Your task to perform on an android device: clear all cookies in the chrome app Image 0: 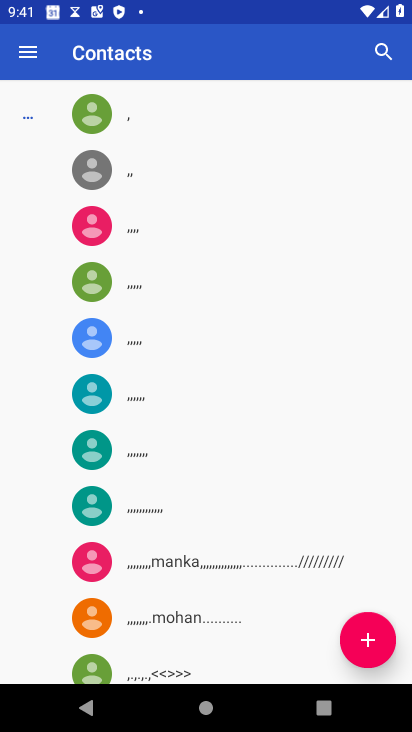
Step 0: press home button
Your task to perform on an android device: clear all cookies in the chrome app Image 1: 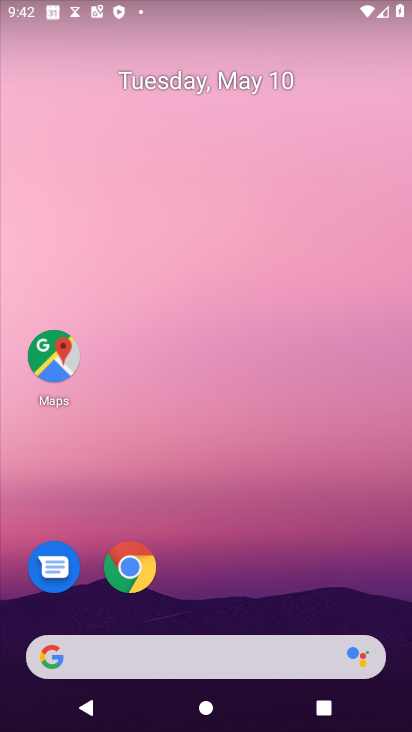
Step 1: click (125, 567)
Your task to perform on an android device: clear all cookies in the chrome app Image 2: 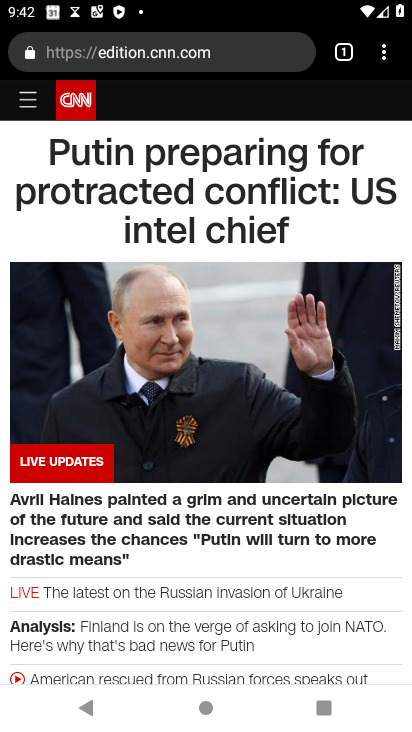
Step 2: click (384, 50)
Your task to perform on an android device: clear all cookies in the chrome app Image 3: 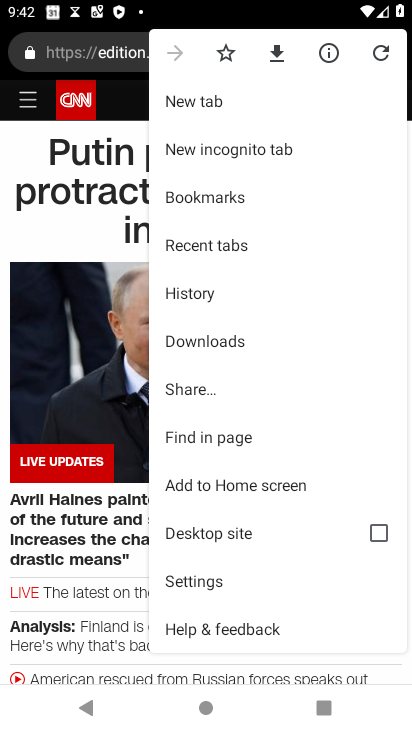
Step 3: click (193, 577)
Your task to perform on an android device: clear all cookies in the chrome app Image 4: 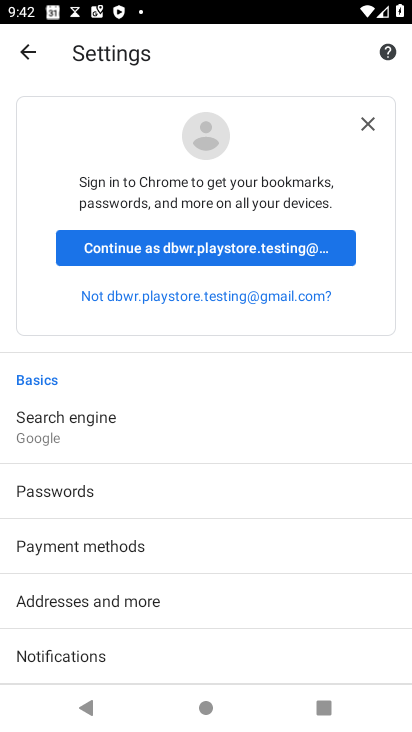
Step 4: drag from (81, 635) to (212, 195)
Your task to perform on an android device: clear all cookies in the chrome app Image 5: 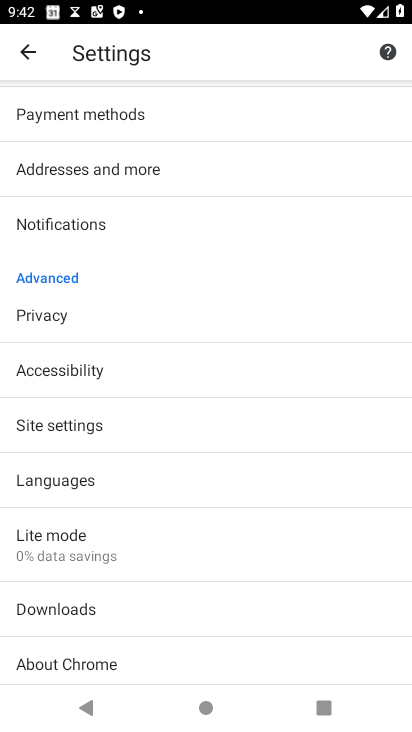
Step 5: click (143, 431)
Your task to perform on an android device: clear all cookies in the chrome app Image 6: 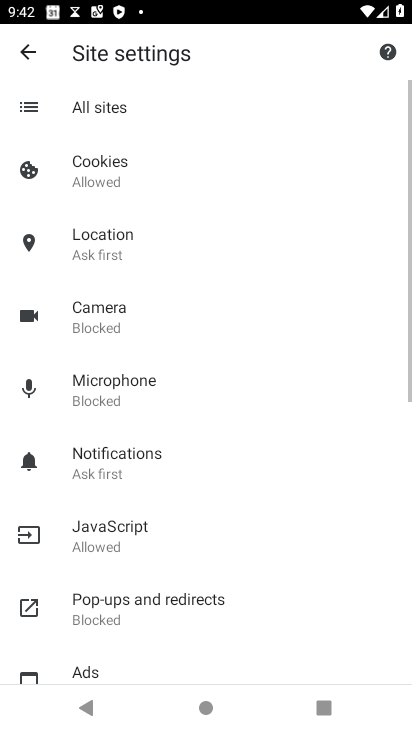
Step 6: click (103, 181)
Your task to perform on an android device: clear all cookies in the chrome app Image 7: 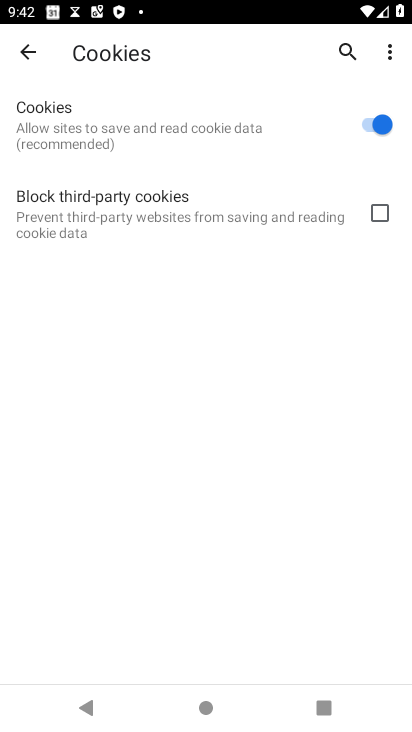
Step 7: task complete